Your task to perform on an android device: Open Google Maps and go to "Timeline" Image 0: 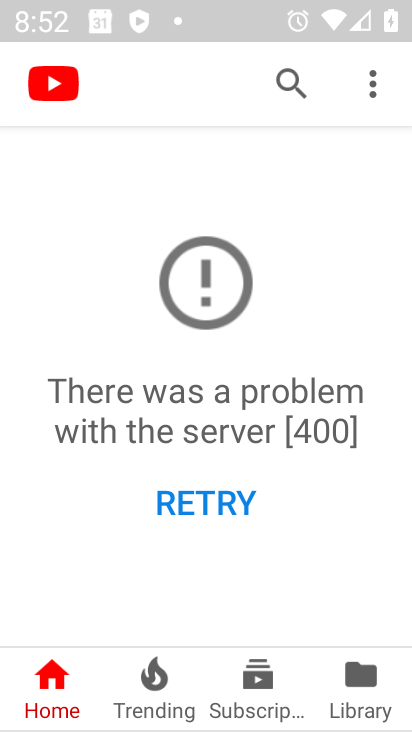
Step 0: click (277, 658)
Your task to perform on an android device: Open Google Maps and go to "Timeline" Image 1: 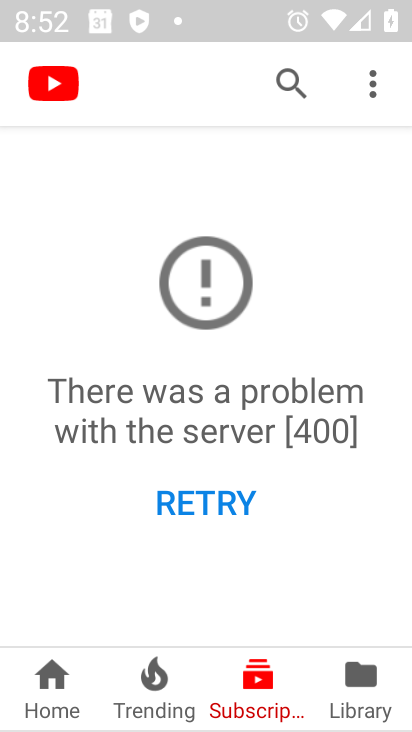
Step 1: press back button
Your task to perform on an android device: Open Google Maps and go to "Timeline" Image 2: 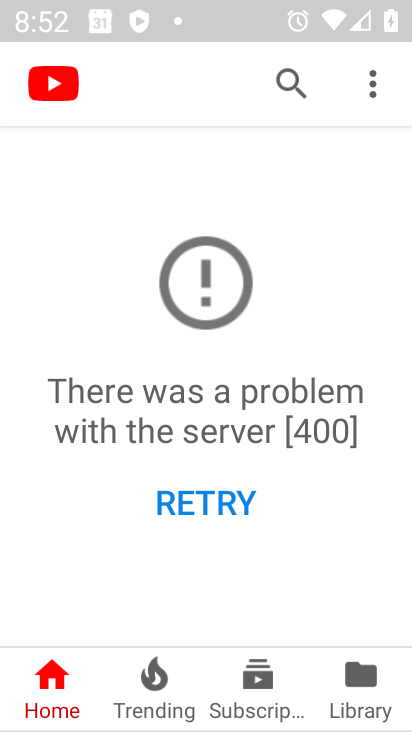
Step 2: press back button
Your task to perform on an android device: Open Google Maps and go to "Timeline" Image 3: 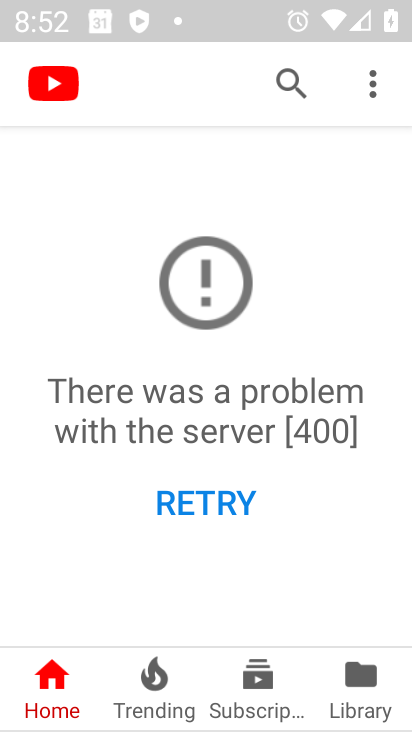
Step 3: press back button
Your task to perform on an android device: Open Google Maps and go to "Timeline" Image 4: 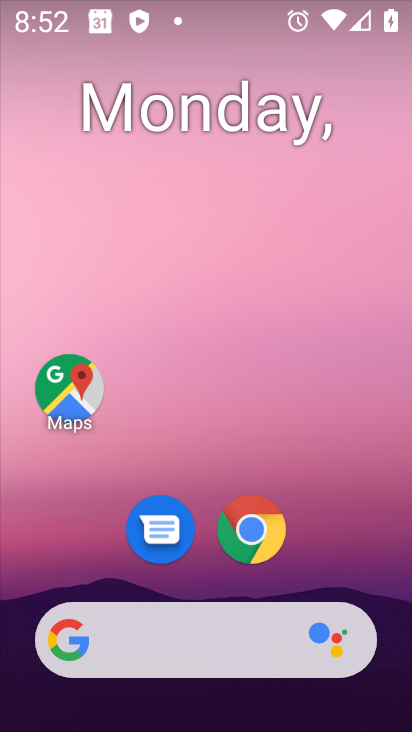
Step 4: drag from (300, 639) to (310, 135)
Your task to perform on an android device: Open Google Maps and go to "Timeline" Image 5: 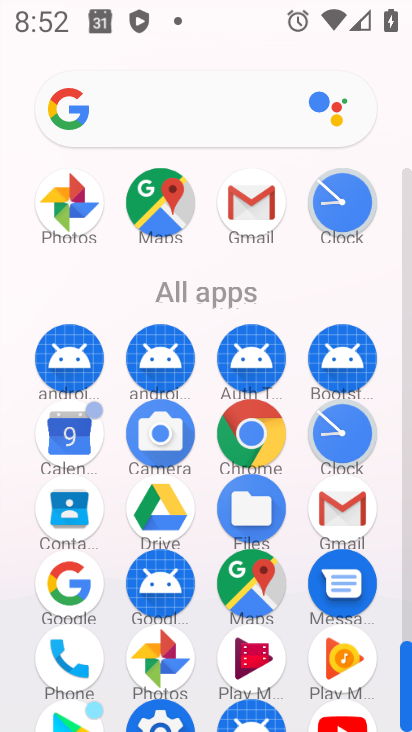
Step 5: click (271, 591)
Your task to perform on an android device: Open Google Maps and go to "Timeline" Image 6: 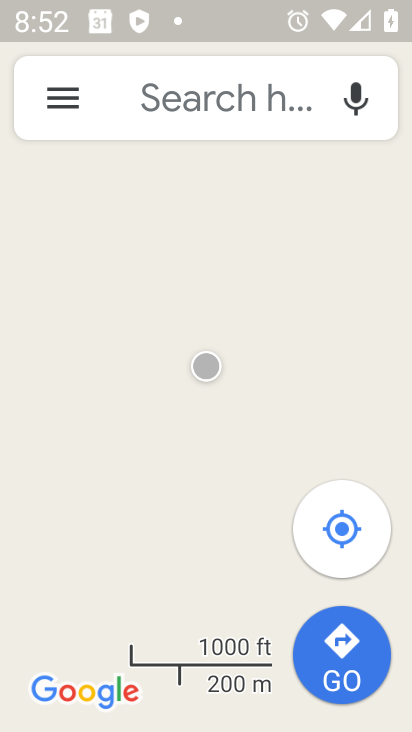
Step 6: click (53, 91)
Your task to perform on an android device: Open Google Maps and go to "Timeline" Image 7: 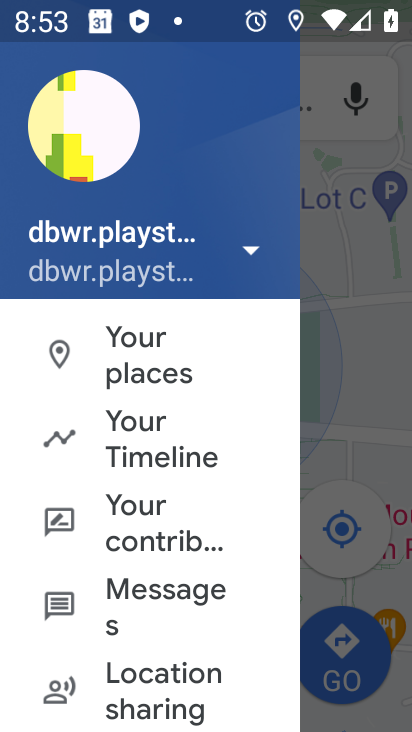
Step 7: click (171, 434)
Your task to perform on an android device: Open Google Maps and go to "Timeline" Image 8: 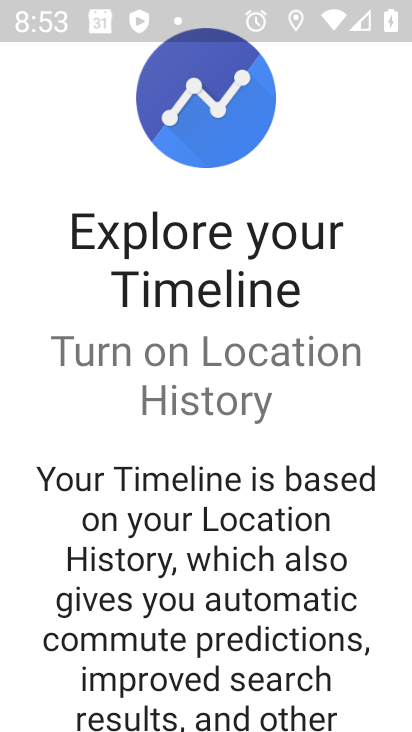
Step 8: drag from (215, 587) to (232, 323)
Your task to perform on an android device: Open Google Maps and go to "Timeline" Image 9: 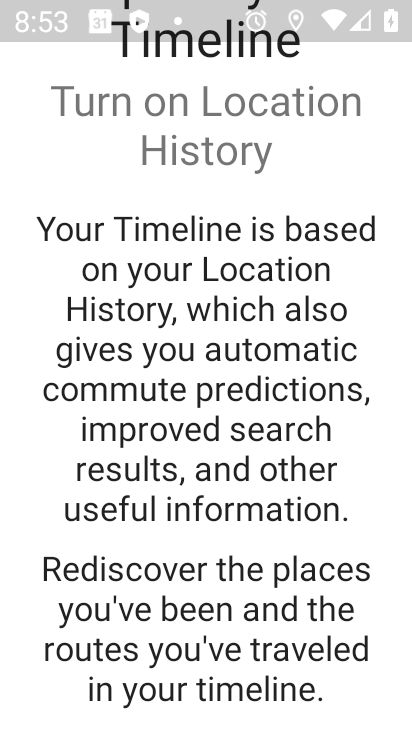
Step 9: drag from (230, 650) to (244, 318)
Your task to perform on an android device: Open Google Maps and go to "Timeline" Image 10: 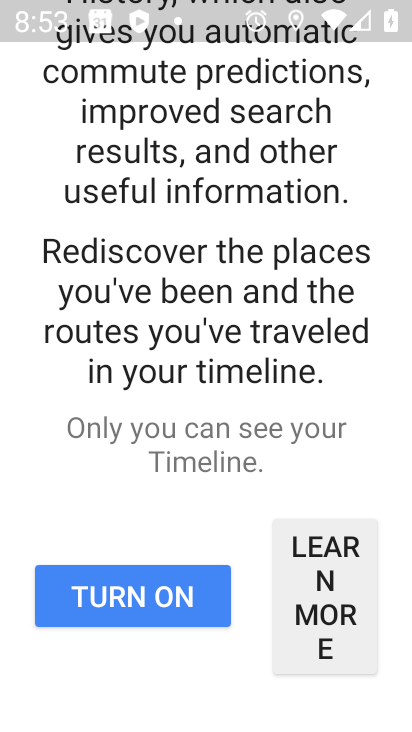
Step 10: click (192, 604)
Your task to perform on an android device: Open Google Maps and go to "Timeline" Image 11: 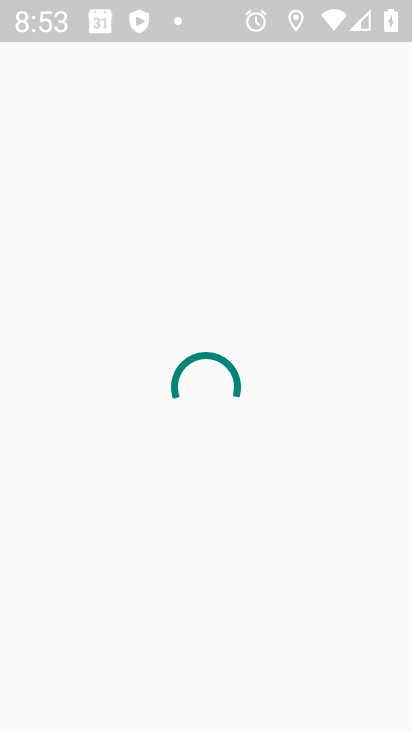
Step 11: task complete